Your task to perform on an android device: Open the web browser Image 0: 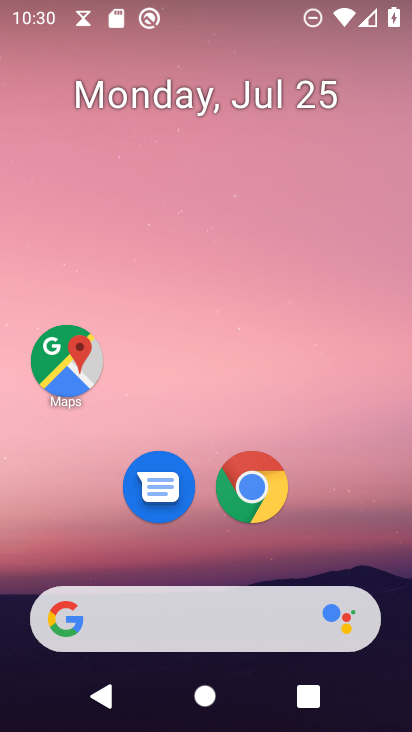
Step 0: click (251, 494)
Your task to perform on an android device: Open the web browser Image 1: 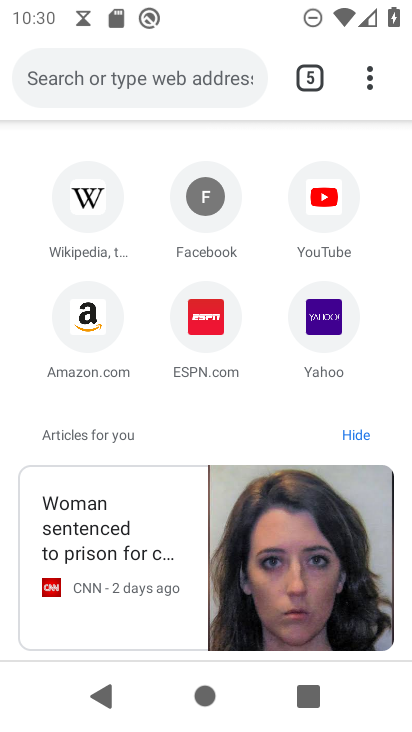
Step 1: task complete